Your task to perform on an android device: Open the phone app and click the voicemail tab. Image 0: 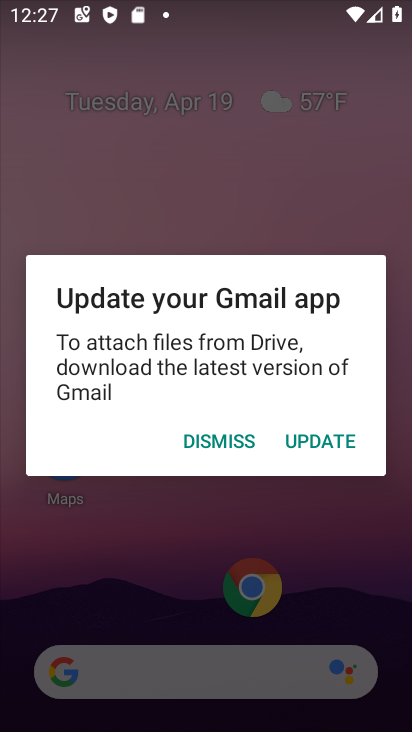
Step 0: press home button
Your task to perform on an android device: Open the phone app and click the voicemail tab. Image 1: 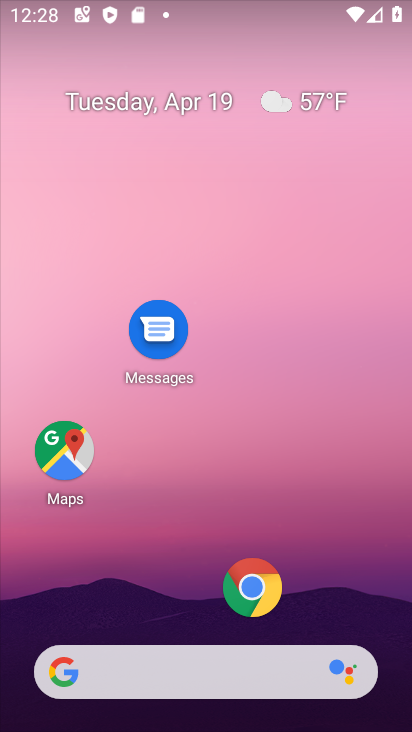
Step 1: drag from (193, 591) to (191, 128)
Your task to perform on an android device: Open the phone app and click the voicemail tab. Image 2: 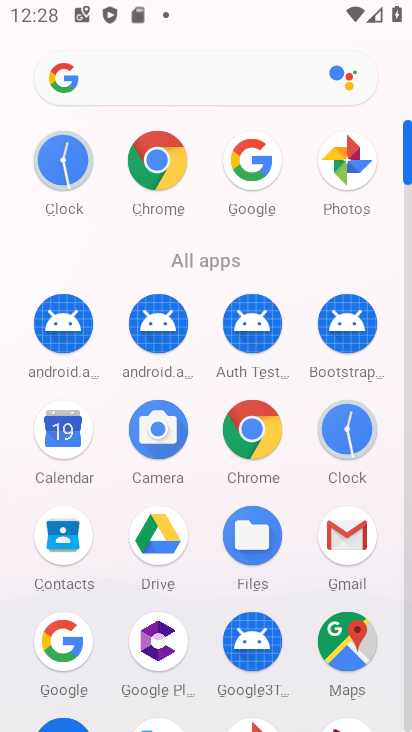
Step 2: drag from (293, 489) to (322, 272)
Your task to perform on an android device: Open the phone app and click the voicemail tab. Image 3: 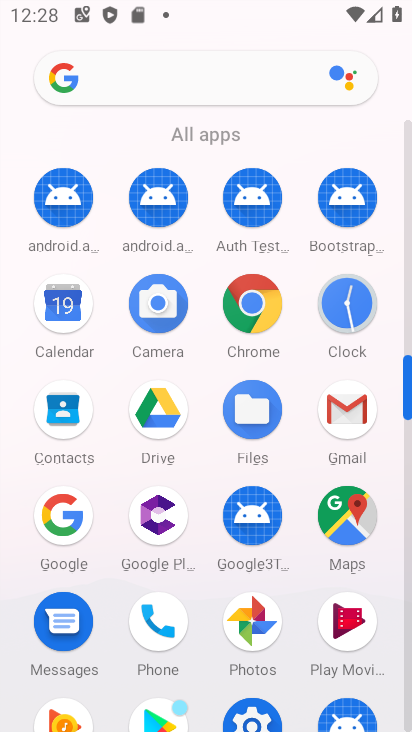
Step 3: click (162, 617)
Your task to perform on an android device: Open the phone app and click the voicemail tab. Image 4: 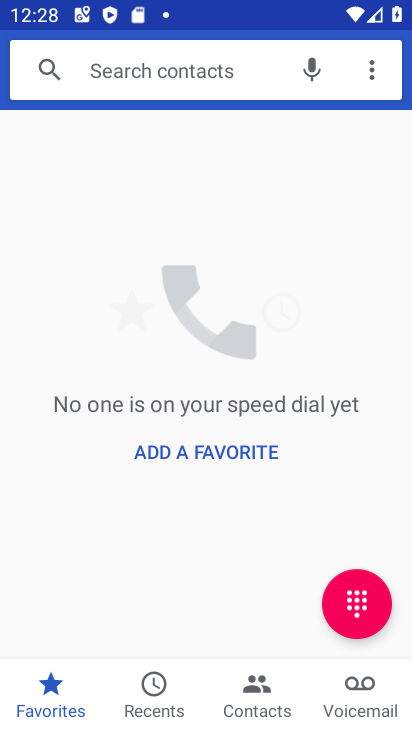
Step 4: click (371, 707)
Your task to perform on an android device: Open the phone app and click the voicemail tab. Image 5: 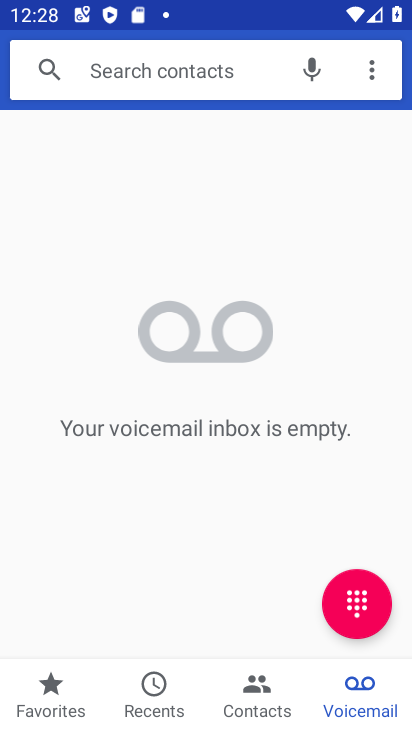
Step 5: task complete